Your task to perform on an android device: set the stopwatch Image 0: 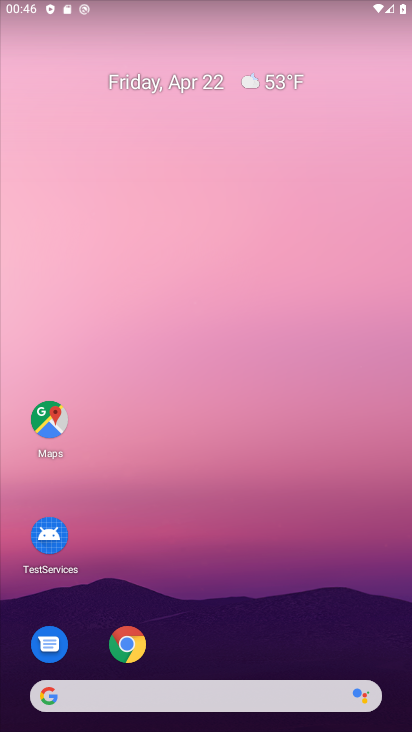
Step 0: drag from (277, 594) to (244, 56)
Your task to perform on an android device: set the stopwatch Image 1: 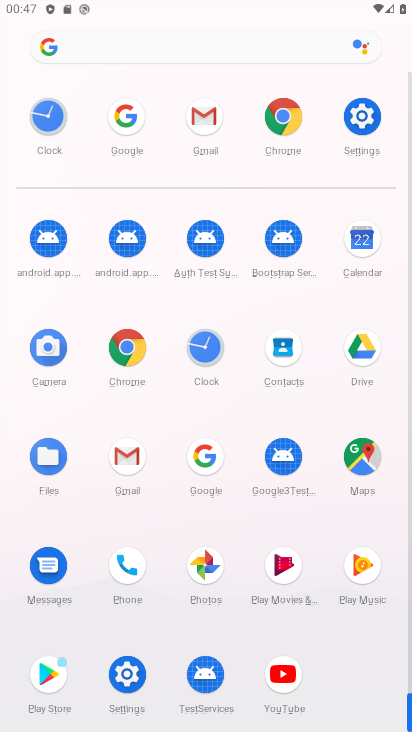
Step 1: click (205, 349)
Your task to perform on an android device: set the stopwatch Image 2: 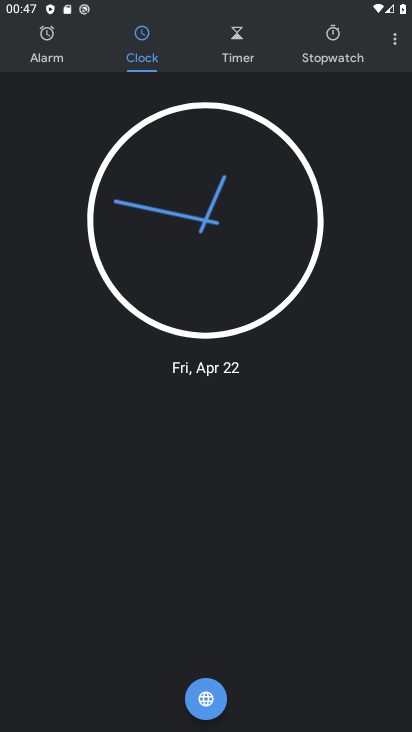
Step 2: click (323, 51)
Your task to perform on an android device: set the stopwatch Image 3: 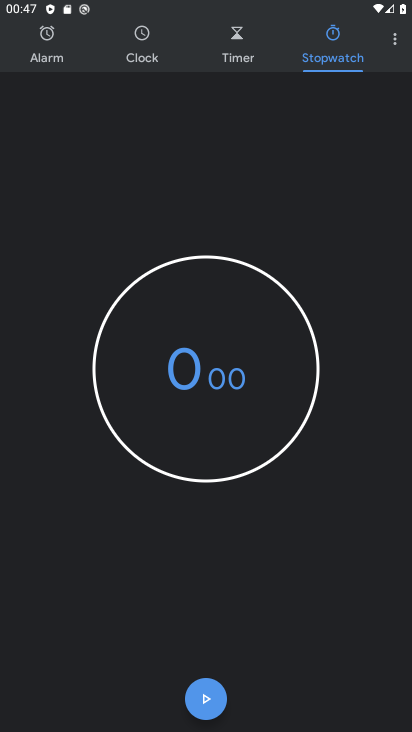
Step 3: task complete